Your task to perform on an android device: turn on location history Image 0: 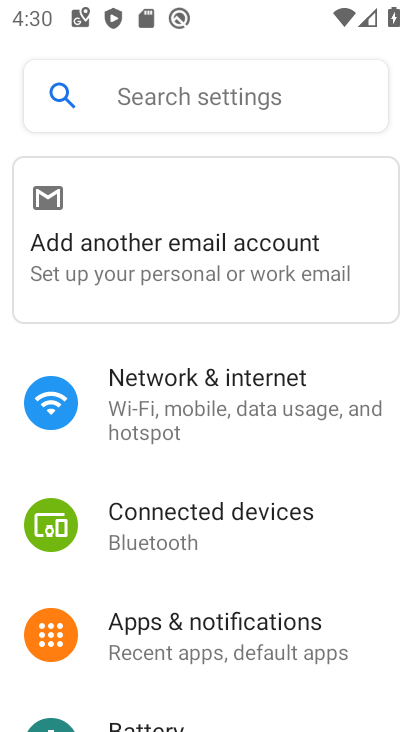
Step 0: drag from (223, 665) to (228, 95)
Your task to perform on an android device: turn on location history Image 1: 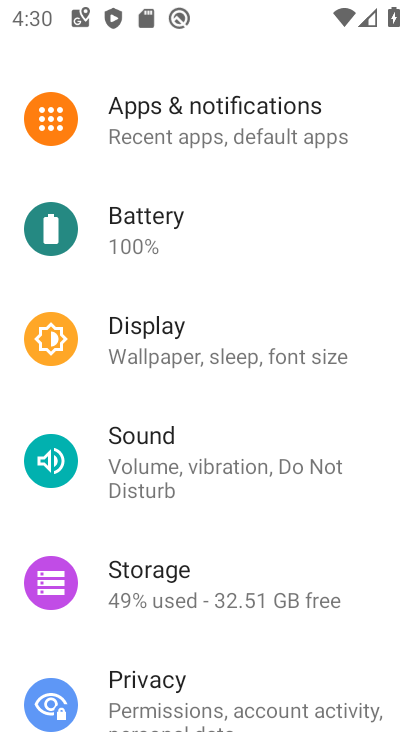
Step 1: drag from (164, 629) to (233, 230)
Your task to perform on an android device: turn on location history Image 2: 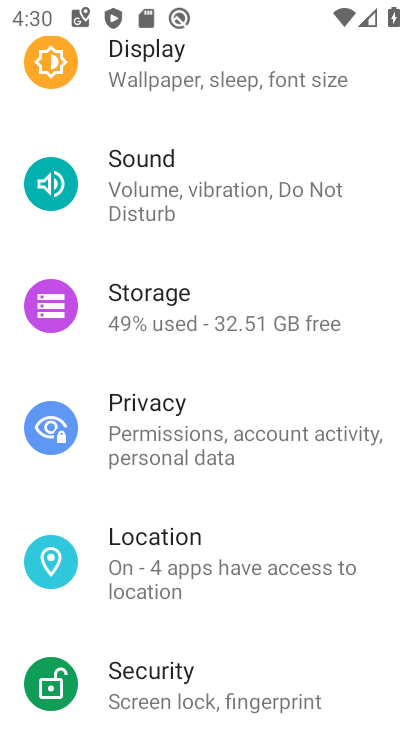
Step 2: click (171, 566)
Your task to perform on an android device: turn on location history Image 3: 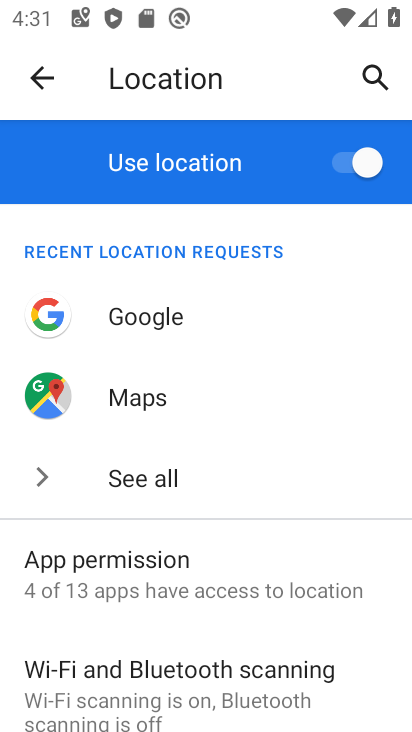
Step 3: drag from (213, 611) to (251, 152)
Your task to perform on an android device: turn on location history Image 4: 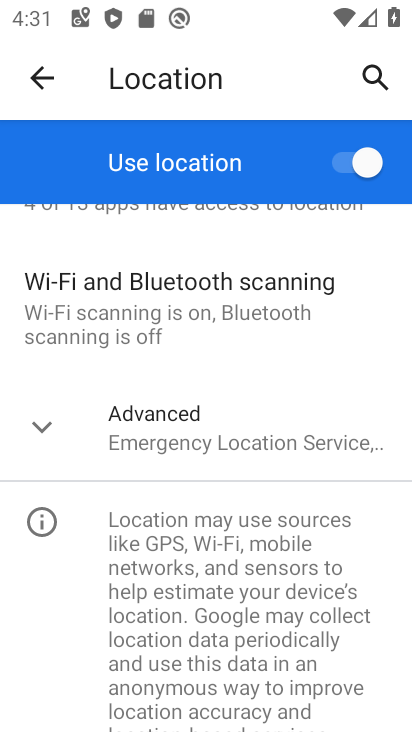
Step 4: click (191, 421)
Your task to perform on an android device: turn on location history Image 5: 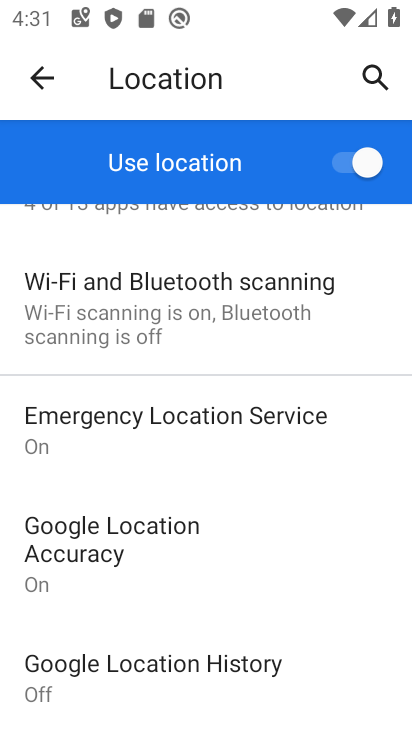
Step 5: click (149, 656)
Your task to perform on an android device: turn on location history Image 6: 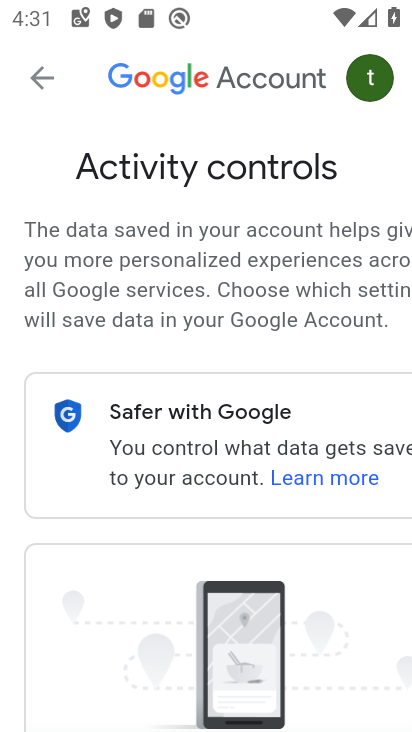
Step 6: drag from (177, 638) to (161, 82)
Your task to perform on an android device: turn on location history Image 7: 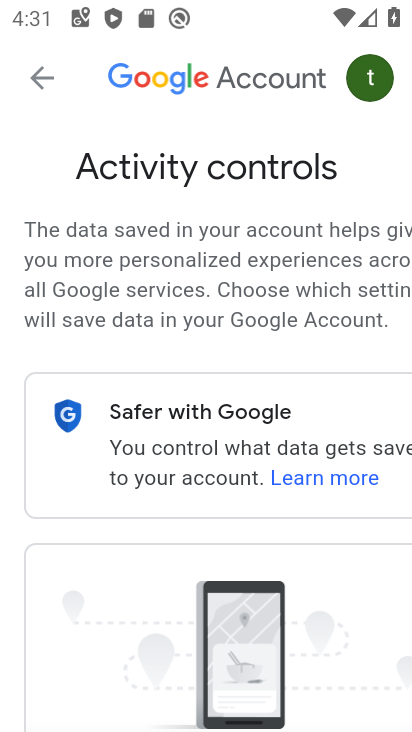
Step 7: drag from (194, 611) to (206, 97)
Your task to perform on an android device: turn on location history Image 8: 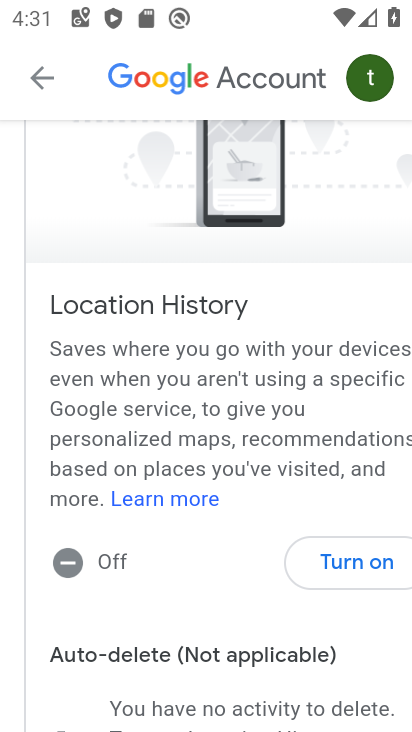
Step 8: click (356, 562)
Your task to perform on an android device: turn on location history Image 9: 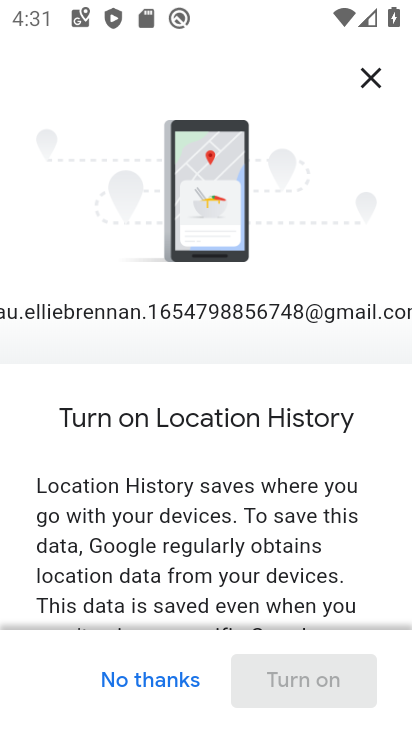
Step 9: drag from (245, 590) to (277, 50)
Your task to perform on an android device: turn on location history Image 10: 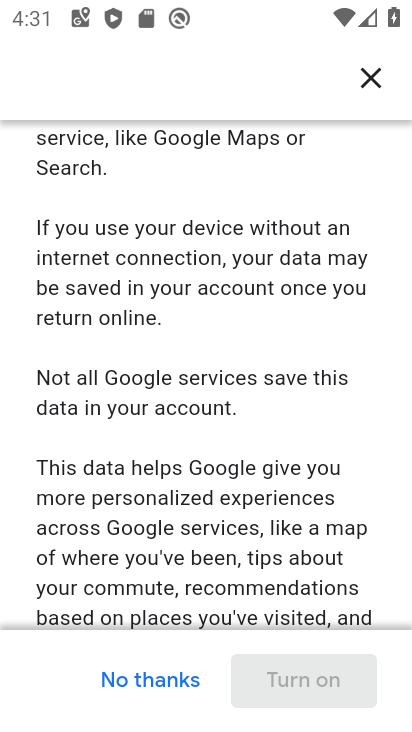
Step 10: drag from (210, 532) to (297, 4)
Your task to perform on an android device: turn on location history Image 11: 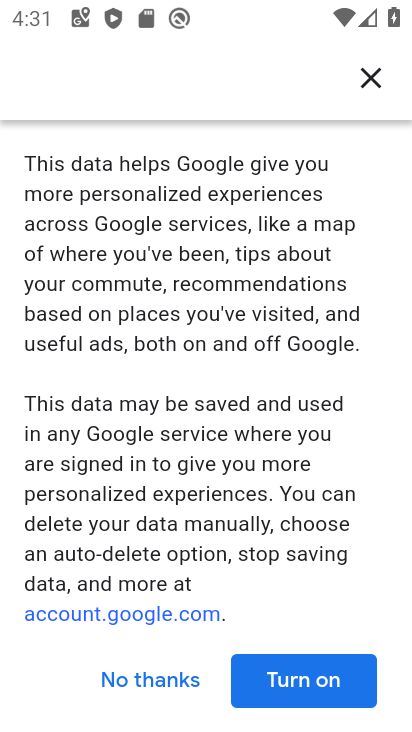
Step 11: click (295, 683)
Your task to perform on an android device: turn on location history Image 12: 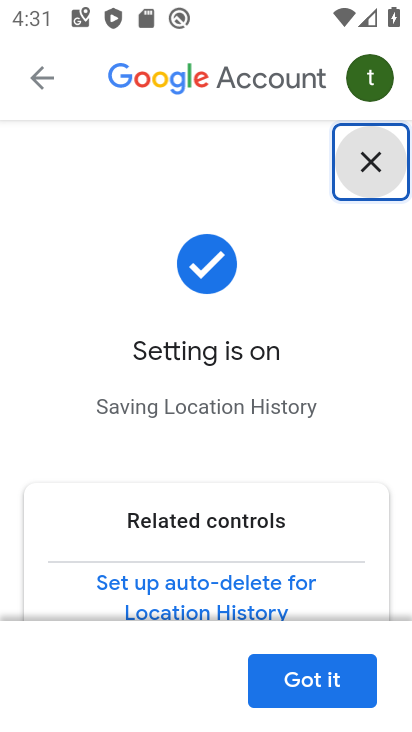
Step 12: task complete